Your task to perform on an android device: Show the shopping cart on ebay. Search for alienware aurora on ebay, select the first entry, and add it to the cart. Image 0: 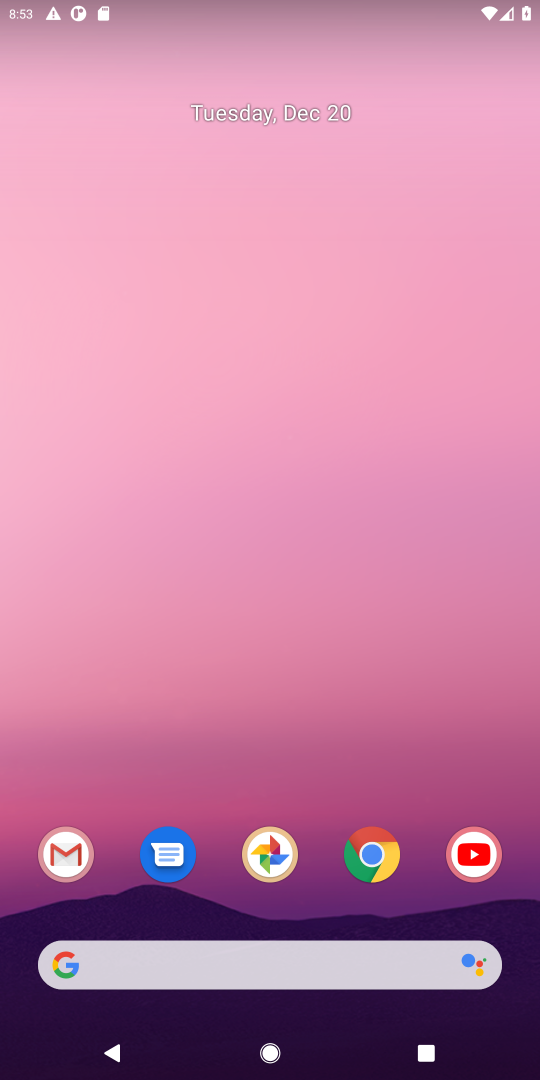
Step 0: click (370, 864)
Your task to perform on an android device: Show the shopping cart on ebay. Search for alienware aurora on ebay, select the first entry, and add it to the cart. Image 1: 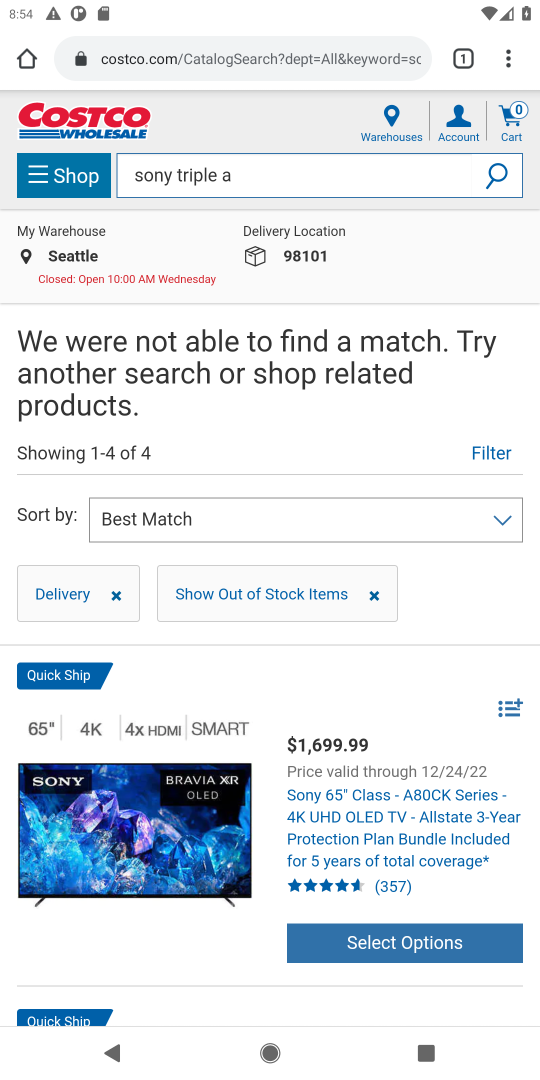
Step 1: click (215, 66)
Your task to perform on an android device: Show the shopping cart on ebay. Search for alienware aurora on ebay, select the first entry, and add it to the cart. Image 2: 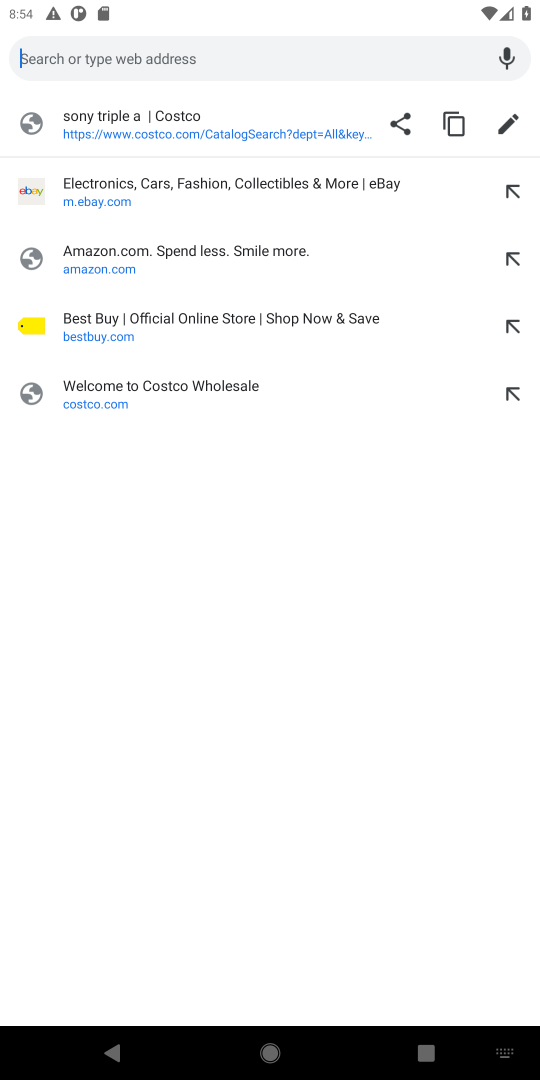
Step 2: click (103, 193)
Your task to perform on an android device: Show the shopping cart on ebay. Search for alienware aurora on ebay, select the first entry, and add it to the cart. Image 3: 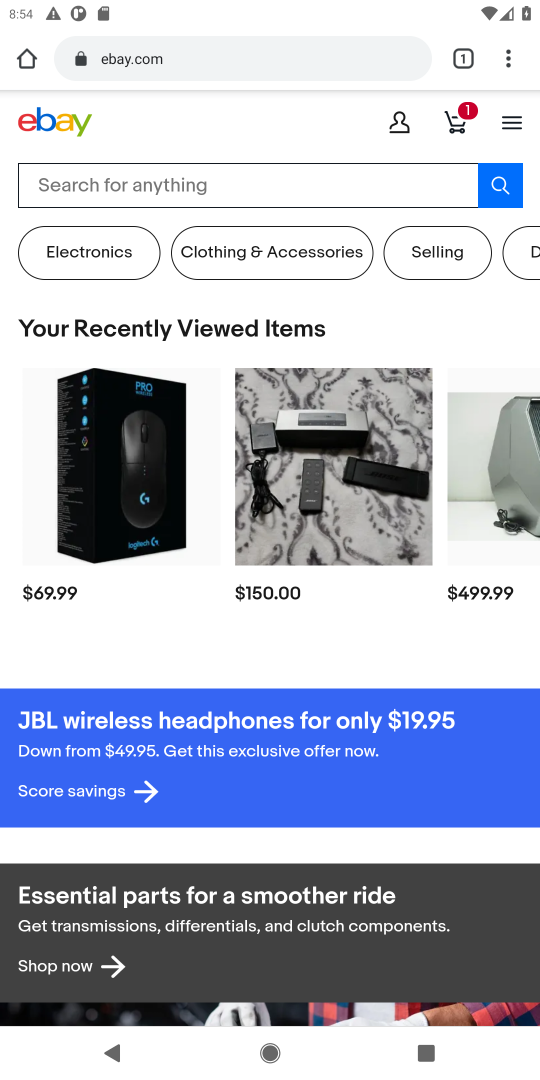
Step 3: click (457, 125)
Your task to perform on an android device: Show the shopping cart on ebay. Search for alienware aurora on ebay, select the first entry, and add it to the cart. Image 4: 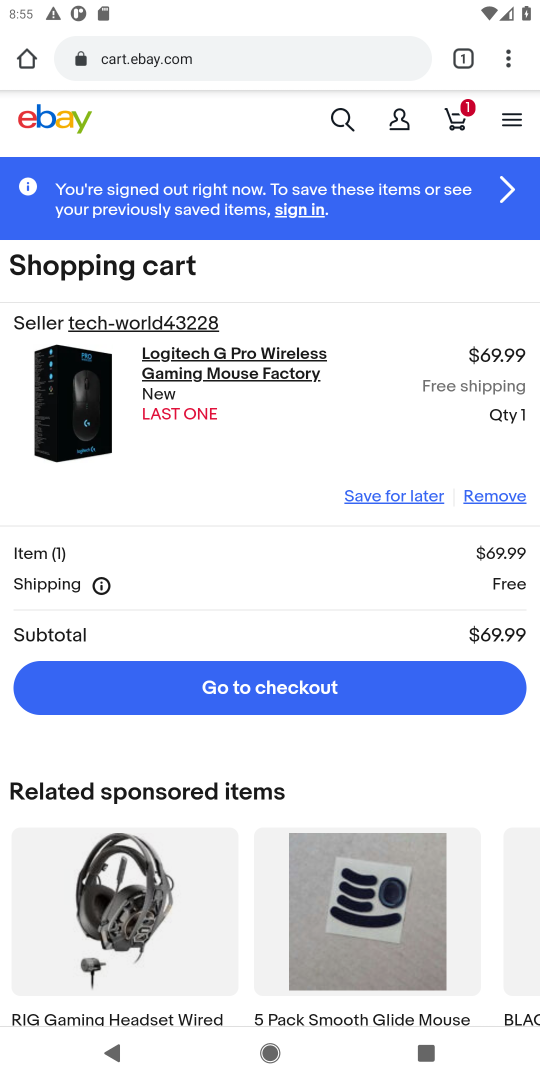
Step 4: click (342, 125)
Your task to perform on an android device: Show the shopping cart on ebay. Search for alienware aurora on ebay, select the first entry, and add it to the cart. Image 5: 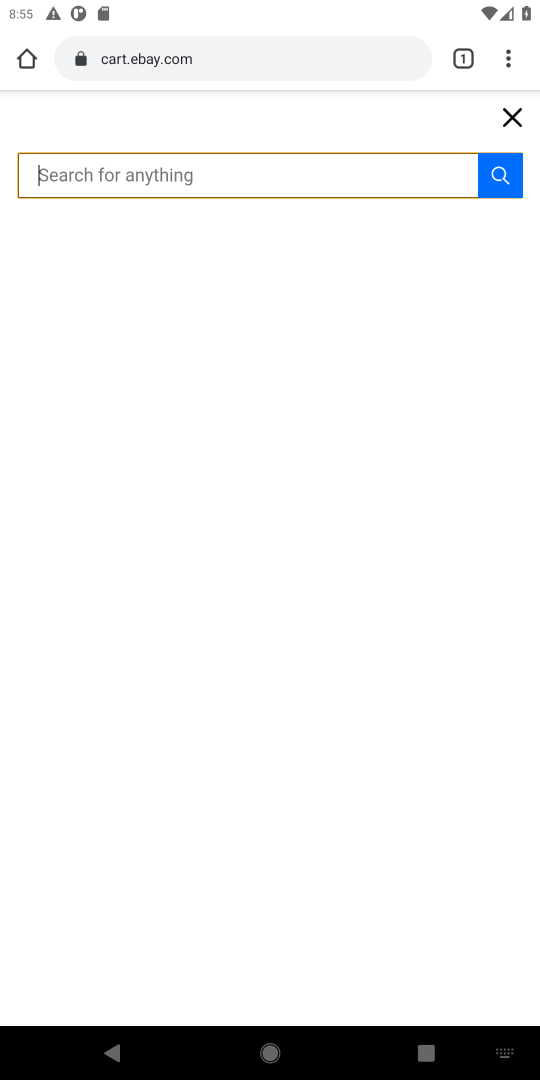
Step 5: type "alienware aurora"
Your task to perform on an android device: Show the shopping cart on ebay. Search for alienware aurora on ebay, select the first entry, and add it to the cart. Image 6: 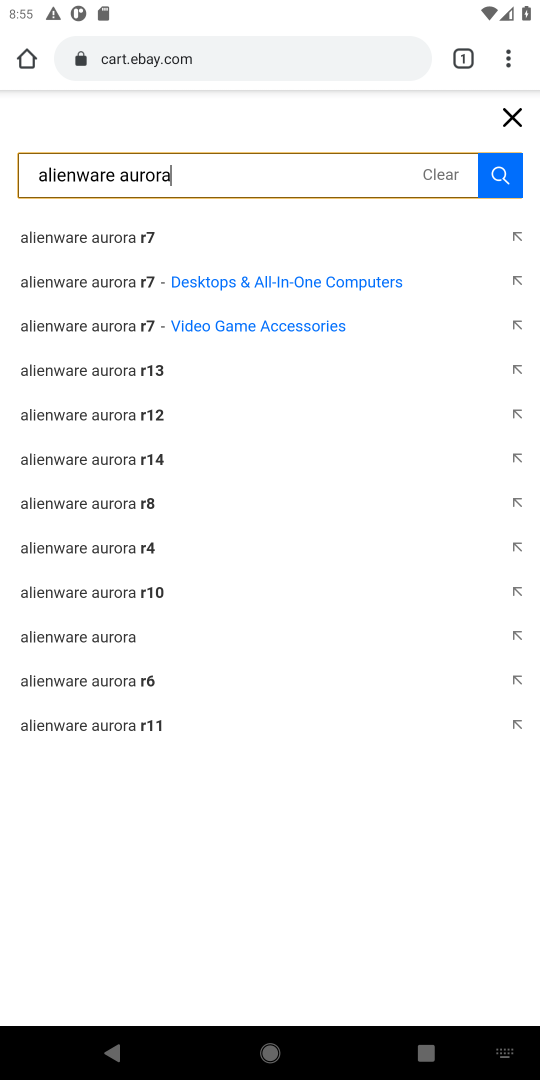
Step 6: click (91, 647)
Your task to perform on an android device: Show the shopping cart on ebay. Search for alienware aurora on ebay, select the first entry, and add it to the cart. Image 7: 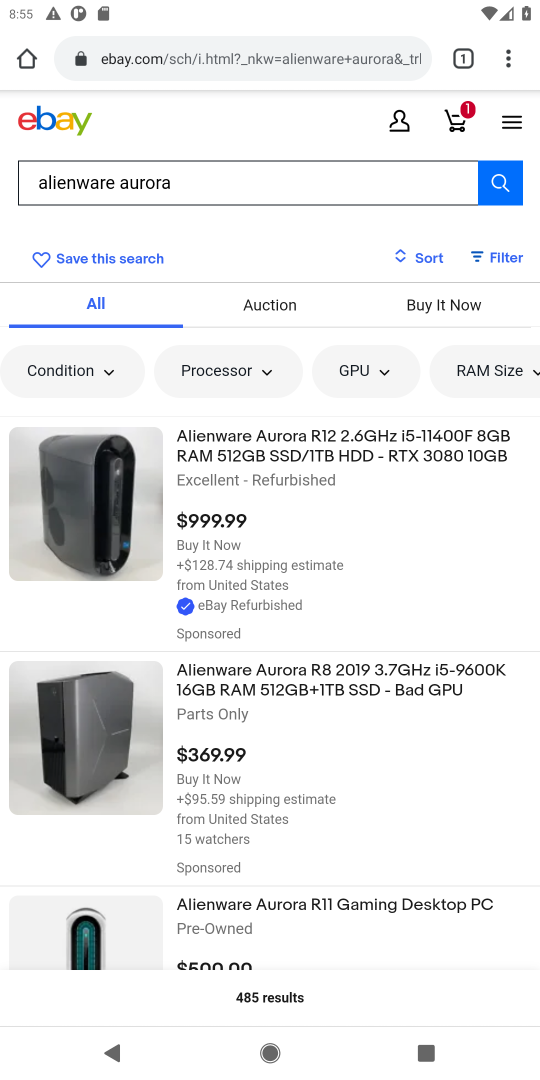
Step 7: click (244, 458)
Your task to perform on an android device: Show the shopping cart on ebay. Search for alienware aurora on ebay, select the first entry, and add it to the cart. Image 8: 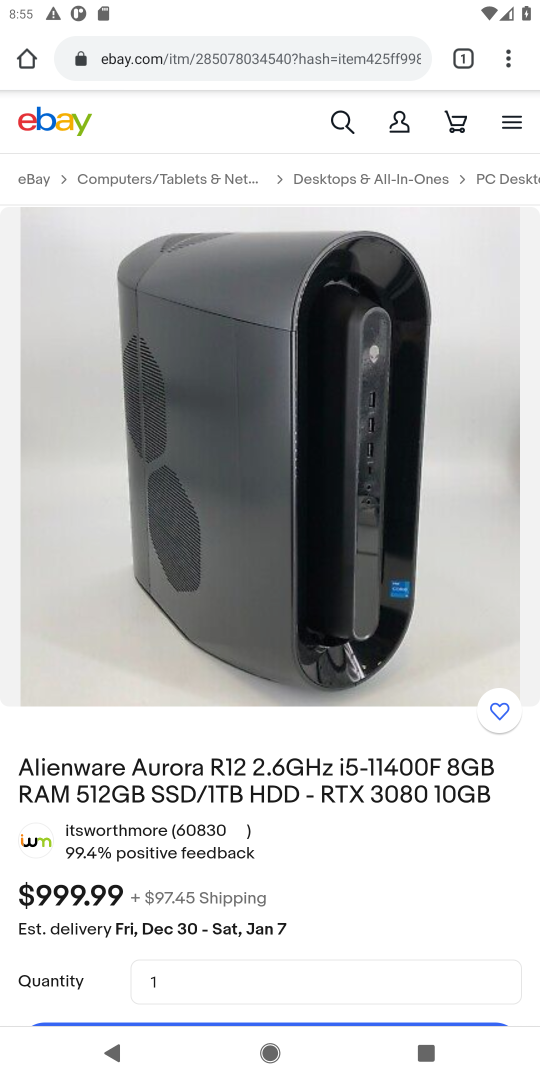
Step 8: drag from (235, 701) to (281, 293)
Your task to perform on an android device: Show the shopping cart on ebay. Search for alienware aurora on ebay, select the first entry, and add it to the cart. Image 9: 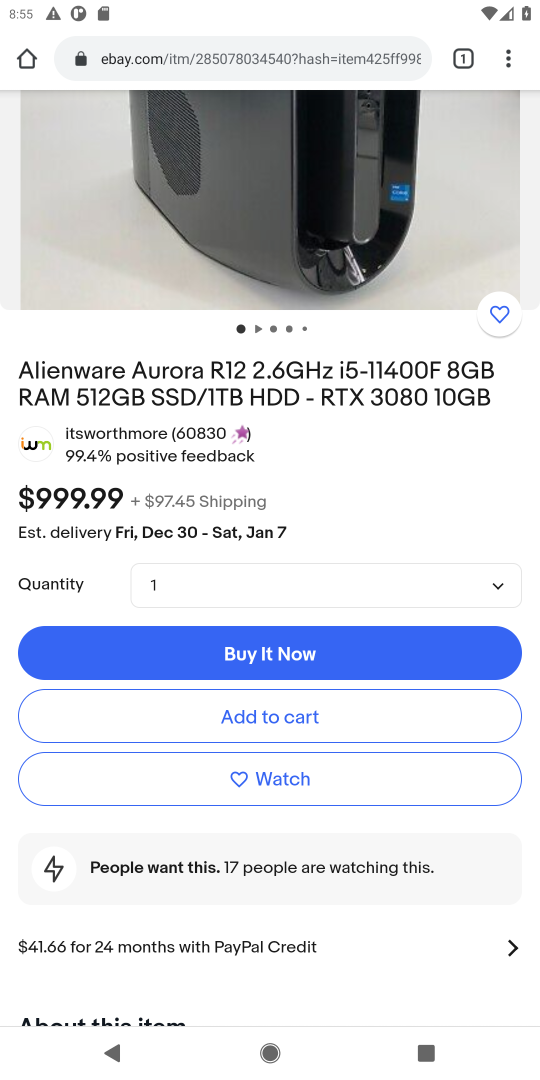
Step 9: click (250, 714)
Your task to perform on an android device: Show the shopping cart on ebay. Search for alienware aurora on ebay, select the first entry, and add it to the cart. Image 10: 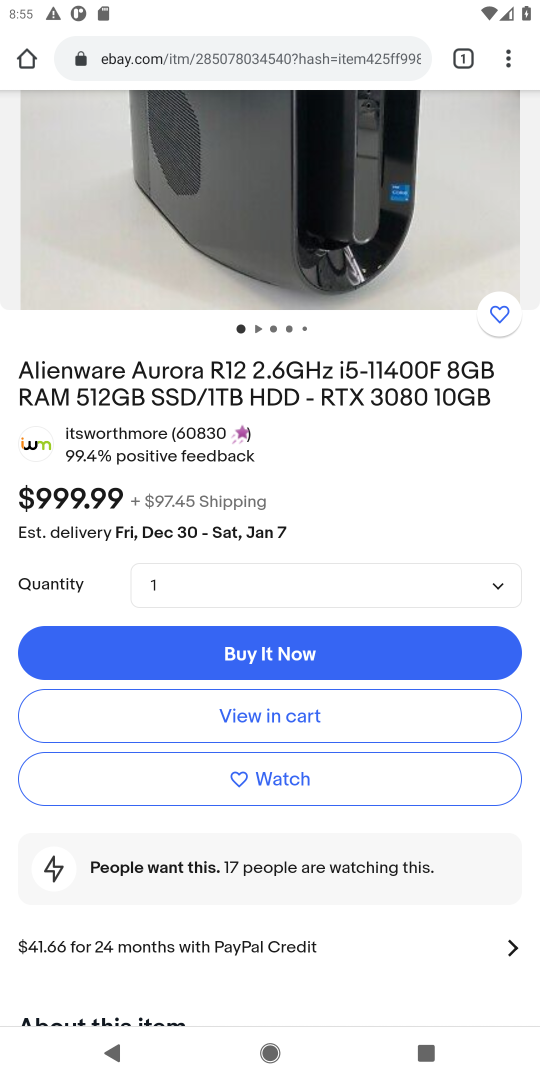
Step 10: task complete